Your task to perform on an android device: Set the phone to "Do not disturb". Image 0: 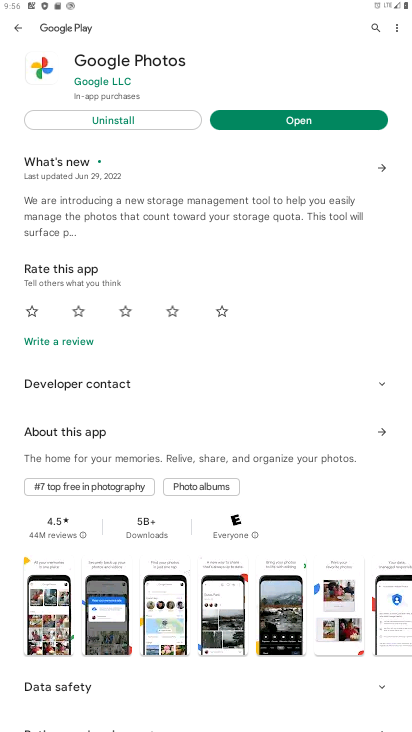
Step 0: press home button
Your task to perform on an android device: Set the phone to "Do not disturb". Image 1: 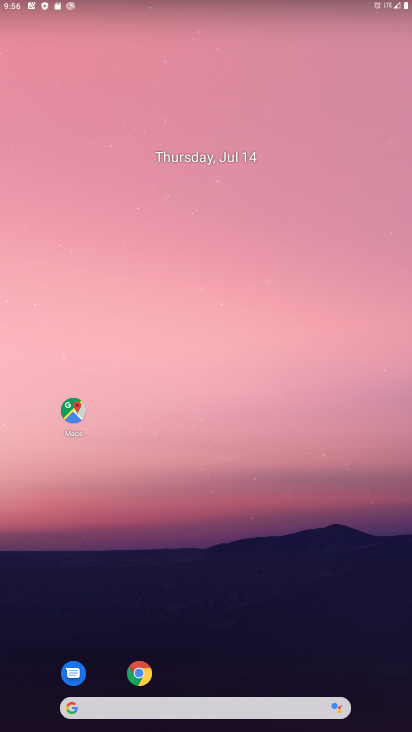
Step 1: drag from (183, 705) to (306, 95)
Your task to perform on an android device: Set the phone to "Do not disturb". Image 2: 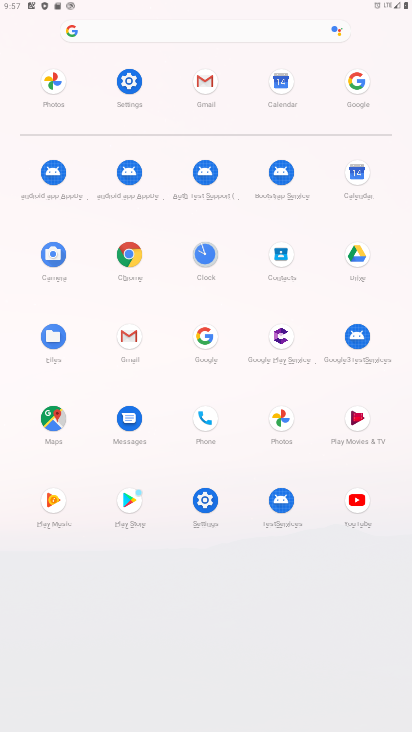
Step 2: click (128, 81)
Your task to perform on an android device: Set the phone to "Do not disturb". Image 3: 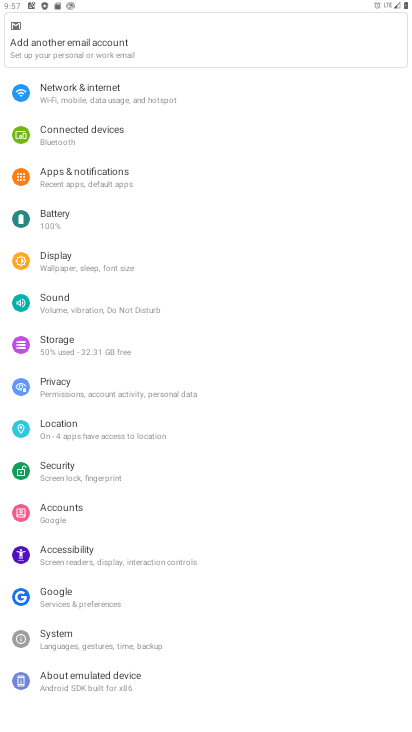
Step 3: click (62, 307)
Your task to perform on an android device: Set the phone to "Do not disturb". Image 4: 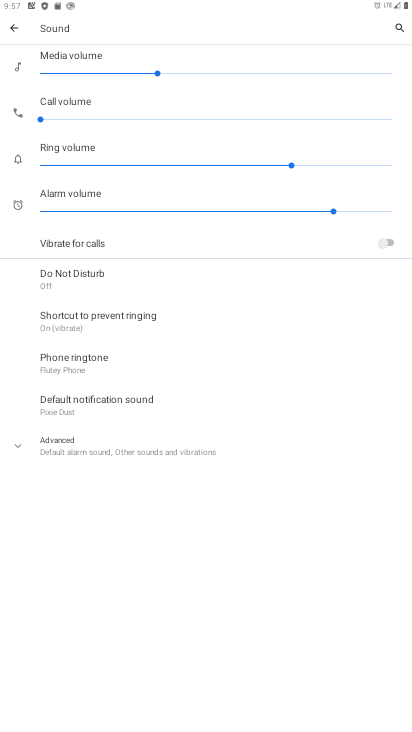
Step 4: click (96, 273)
Your task to perform on an android device: Set the phone to "Do not disturb". Image 5: 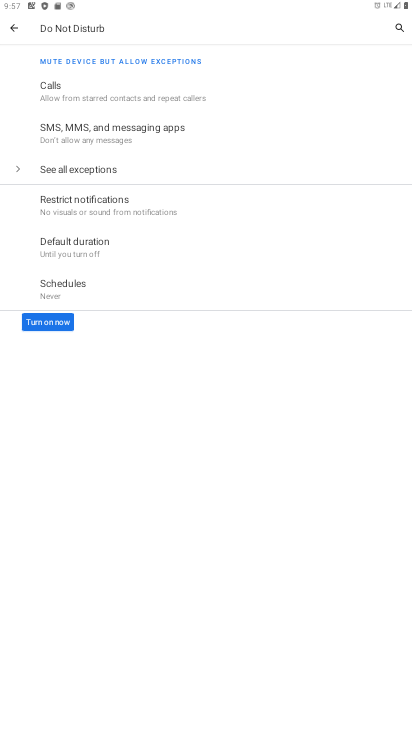
Step 5: click (49, 325)
Your task to perform on an android device: Set the phone to "Do not disturb". Image 6: 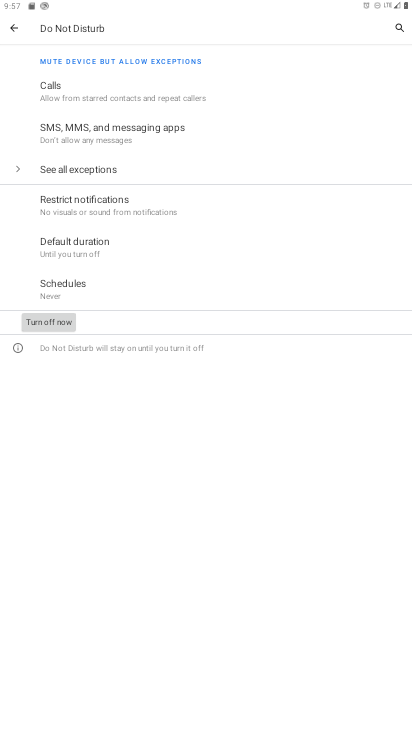
Step 6: task complete